Your task to perform on an android device: turn notification dots on Image 0: 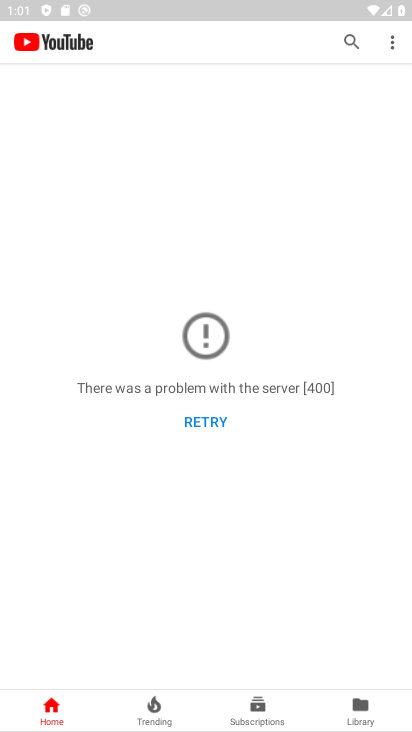
Step 0: press home button
Your task to perform on an android device: turn notification dots on Image 1: 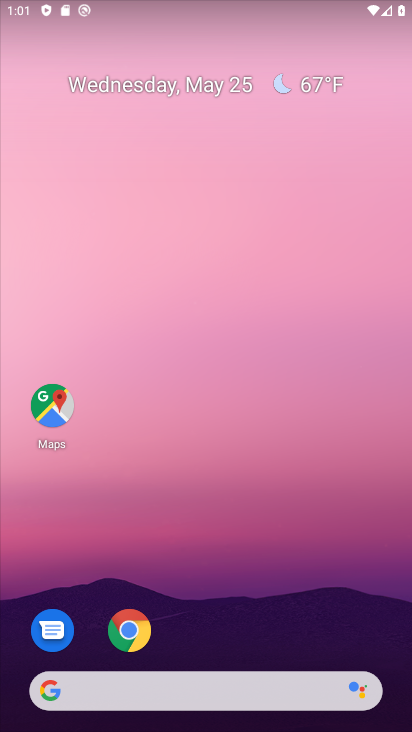
Step 1: drag from (203, 629) to (228, 207)
Your task to perform on an android device: turn notification dots on Image 2: 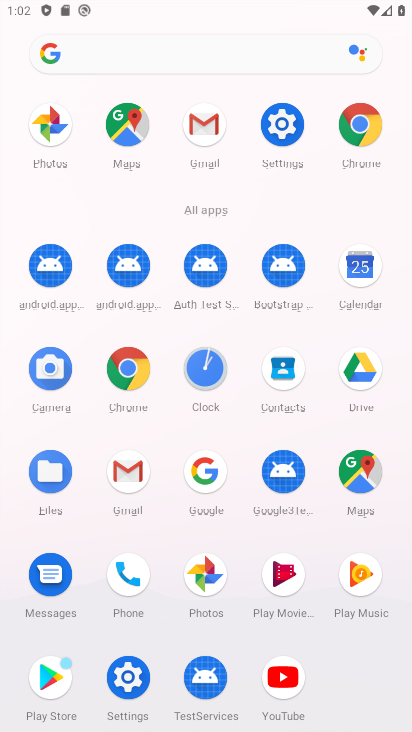
Step 2: click (286, 117)
Your task to perform on an android device: turn notification dots on Image 3: 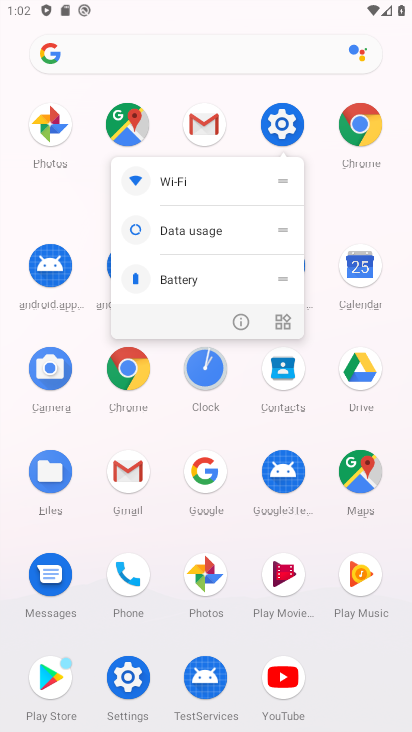
Step 3: click (282, 124)
Your task to perform on an android device: turn notification dots on Image 4: 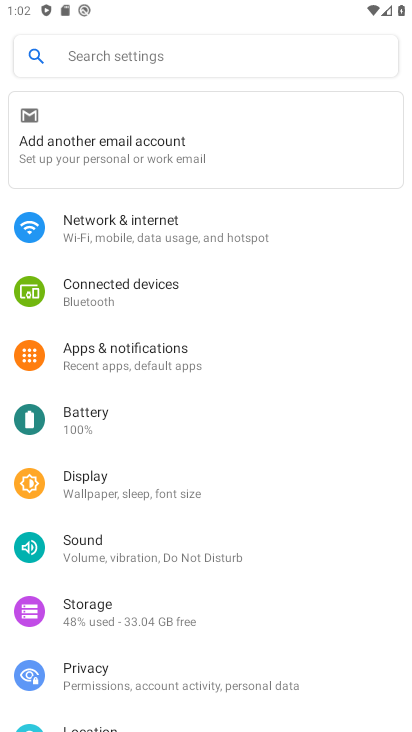
Step 4: click (161, 352)
Your task to perform on an android device: turn notification dots on Image 5: 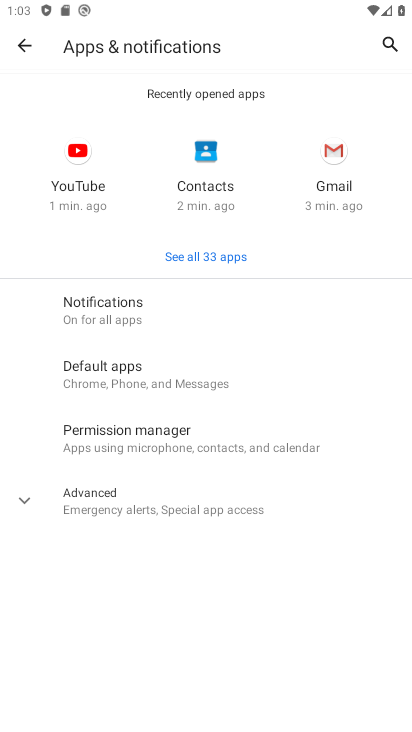
Step 5: click (147, 308)
Your task to perform on an android device: turn notification dots on Image 6: 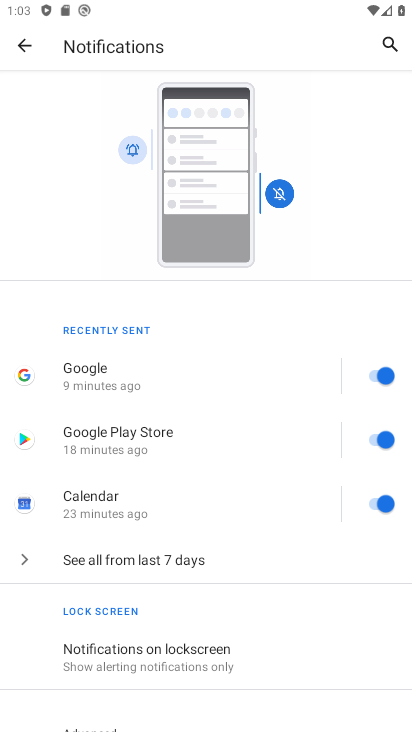
Step 6: drag from (226, 622) to (268, 273)
Your task to perform on an android device: turn notification dots on Image 7: 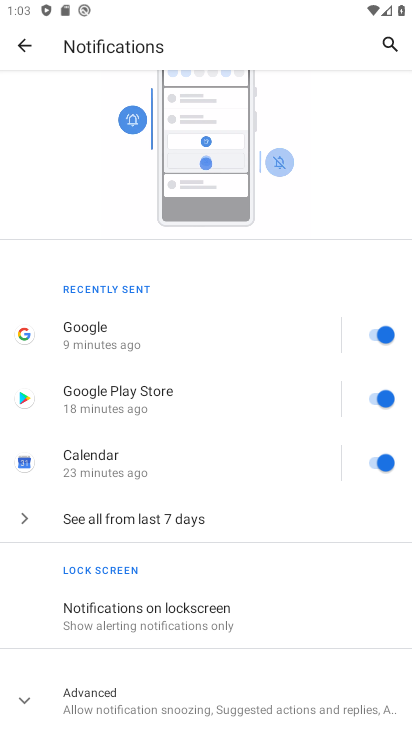
Step 7: click (135, 698)
Your task to perform on an android device: turn notification dots on Image 8: 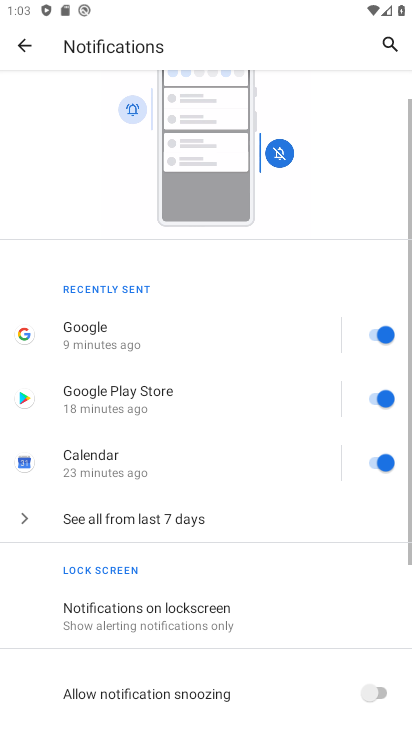
Step 8: task complete